Your task to perform on an android device: search for starred emails in the gmail app Image 0: 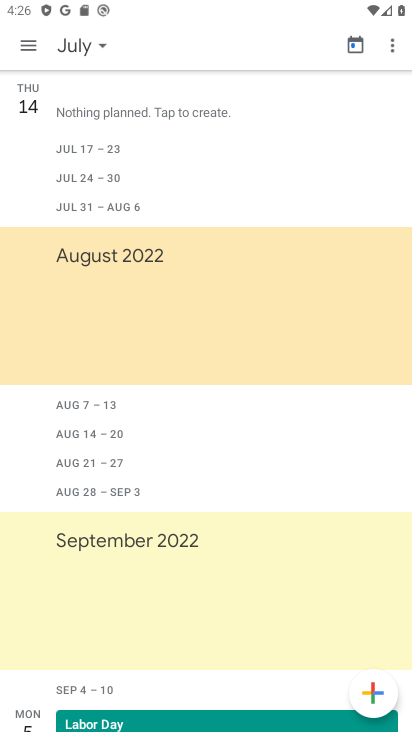
Step 0: press home button
Your task to perform on an android device: search for starred emails in the gmail app Image 1: 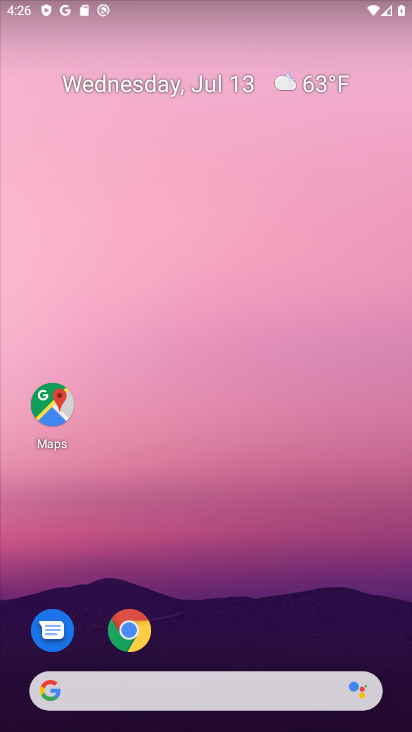
Step 1: drag from (241, 587) to (328, 118)
Your task to perform on an android device: search for starred emails in the gmail app Image 2: 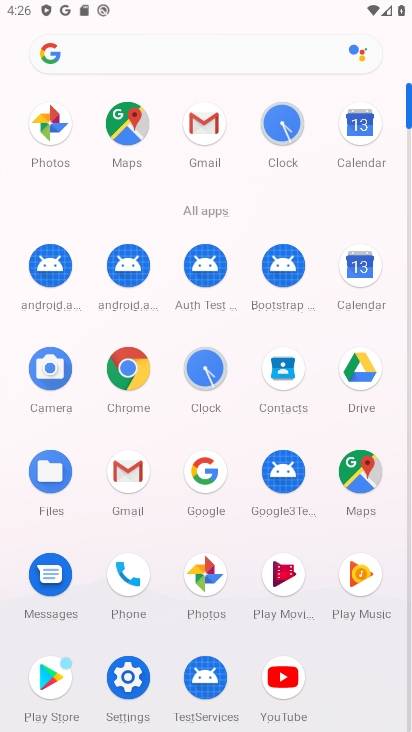
Step 2: click (121, 468)
Your task to perform on an android device: search for starred emails in the gmail app Image 3: 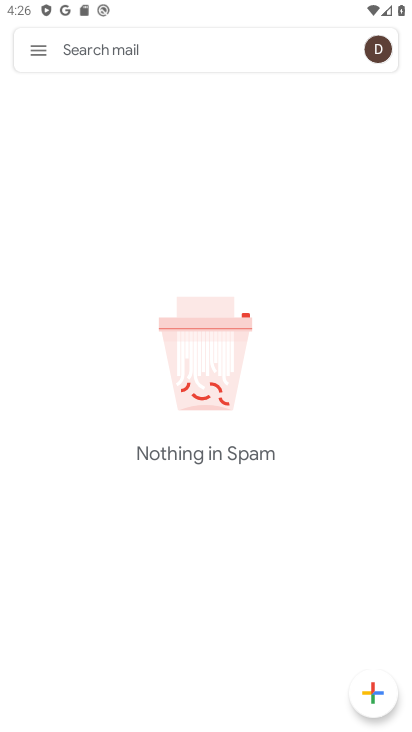
Step 3: click (48, 40)
Your task to perform on an android device: search for starred emails in the gmail app Image 4: 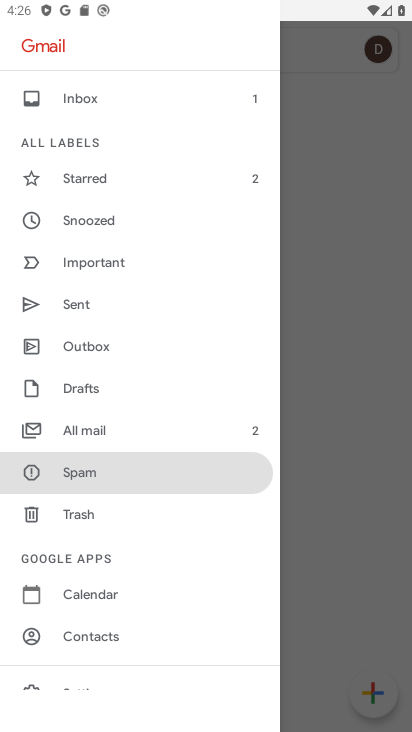
Step 4: click (102, 171)
Your task to perform on an android device: search for starred emails in the gmail app Image 5: 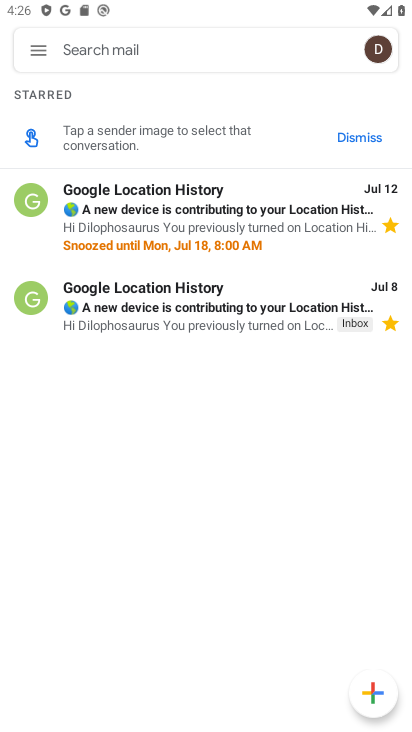
Step 5: task complete